Your task to perform on an android device: Go to eBay Image 0: 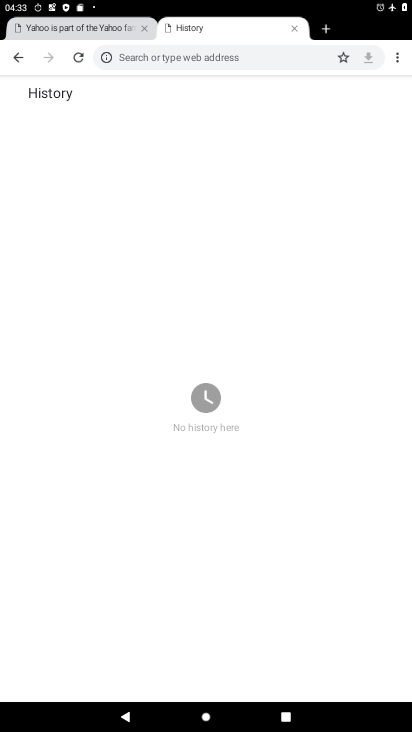
Step 0: click (224, 39)
Your task to perform on an android device: Go to eBay Image 1: 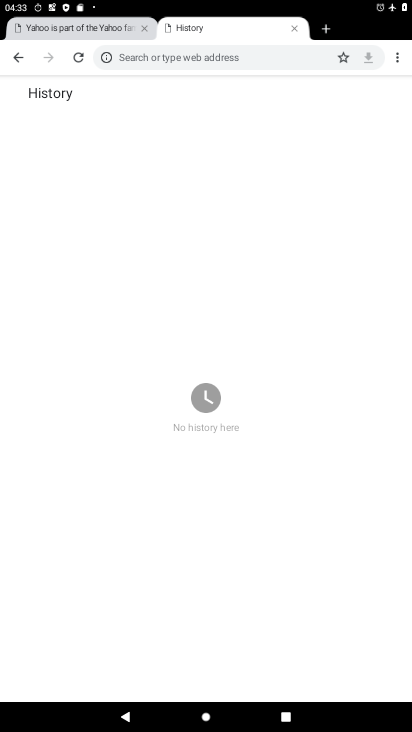
Step 1: click (223, 46)
Your task to perform on an android device: Go to eBay Image 2: 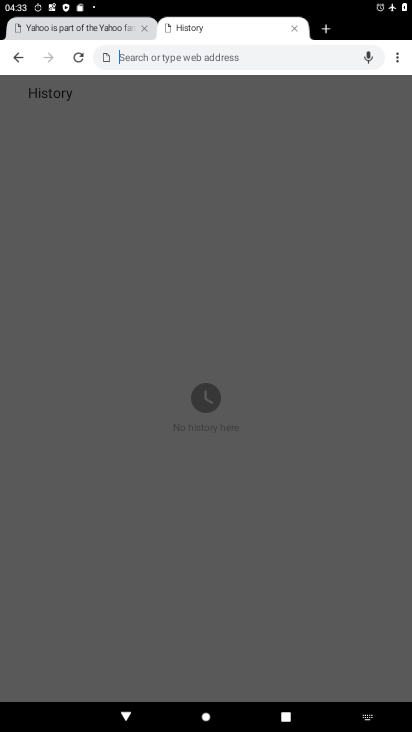
Step 2: type "ebay"
Your task to perform on an android device: Go to eBay Image 3: 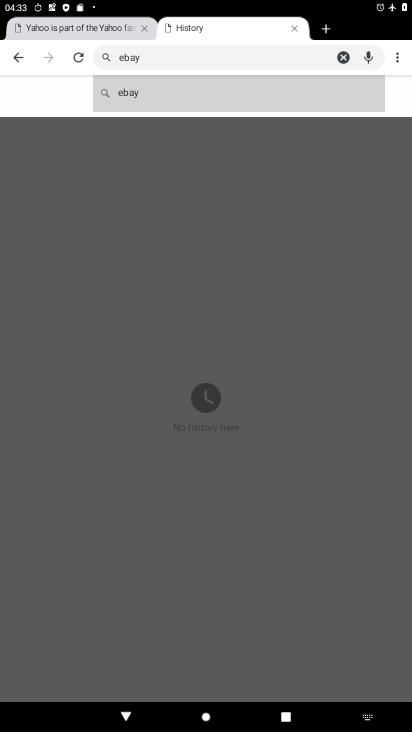
Step 3: click (168, 83)
Your task to perform on an android device: Go to eBay Image 4: 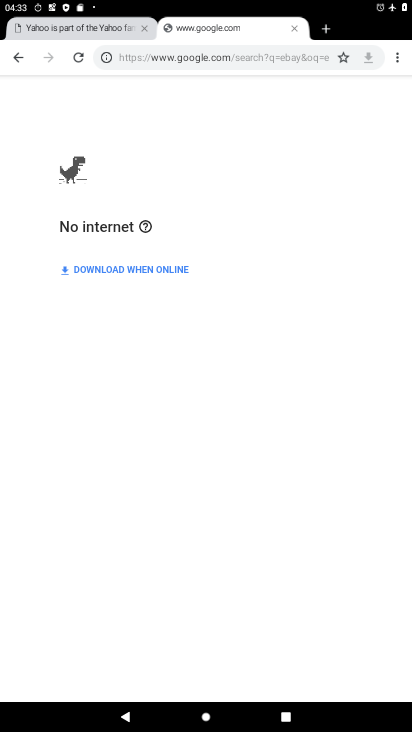
Step 4: task complete